Your task to perform on an android device: Open Youtube and go to the subscriptions tab Image 0: 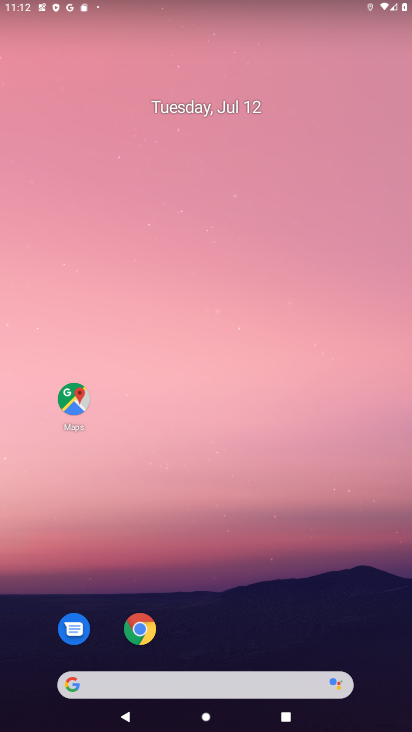
Step 0: drag from (151, 646) to (156, 213)
Your task to perform on an android device: Open Youtube and go to the subscriptions tab Image 1: 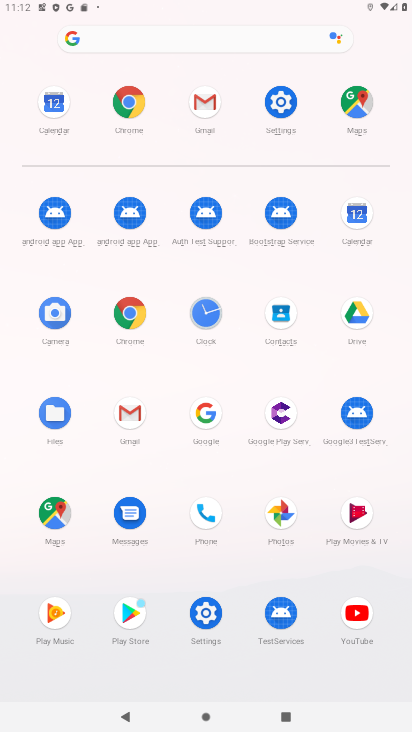
Step 1: click (354, 616)
Your task to perform on an android device: Open Youtube and go to the subscriptions tab Image 2: 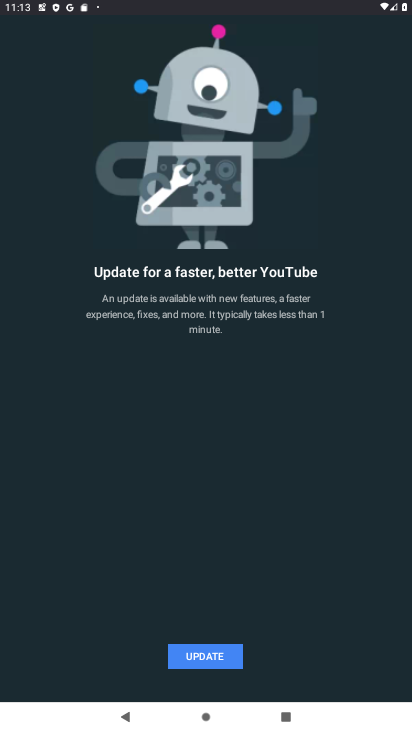
Step 2: task complete